Your task to perform on an android device: create a new album in the google photos Image 0: 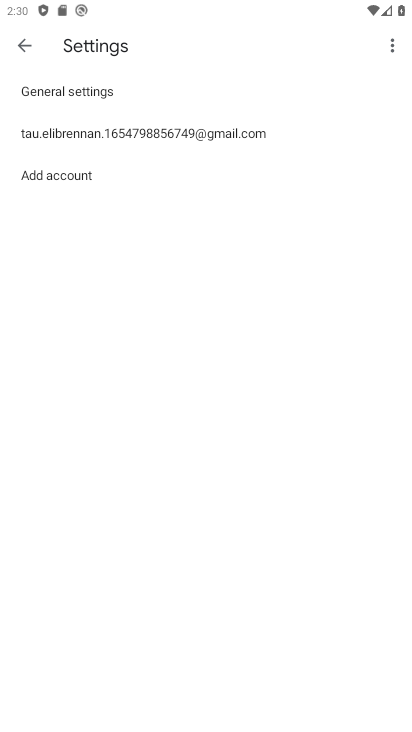
Step 0: press home button
Your task to perform on an android device: create a new album in the google photos Image 1: 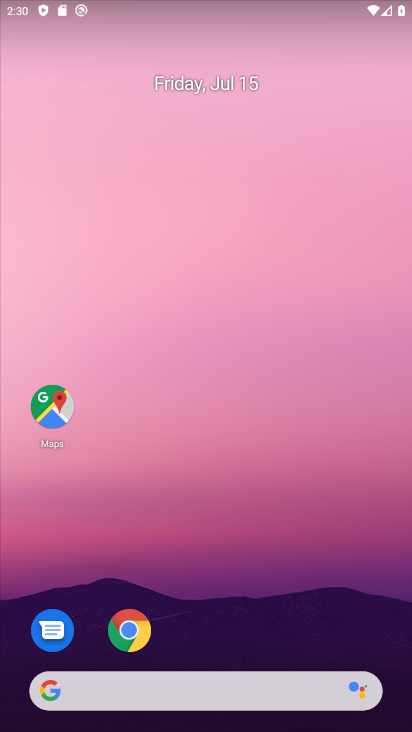
Step 1: drag from (243, 645) to (220, 146)
Your task to perform on an android device: create a new album in the google photos Image 2: 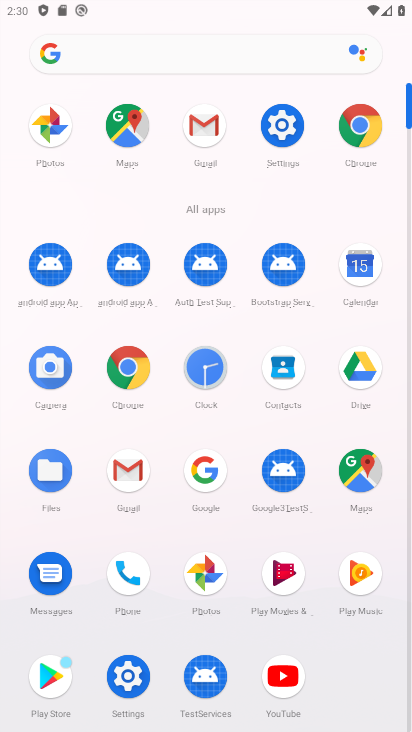
Step 2: click (203, 567)
Your task to perform on an android device: create a new album in the google photos Image 3: 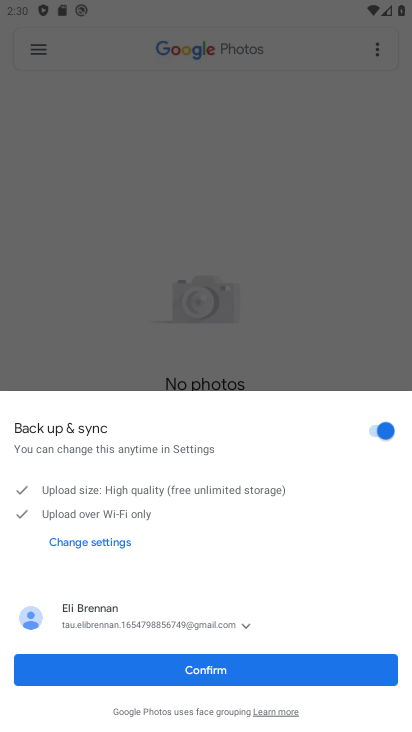
Step 3: click (316, 673)
Your task to perform on an android device: create a new album in the google photos Image 4: 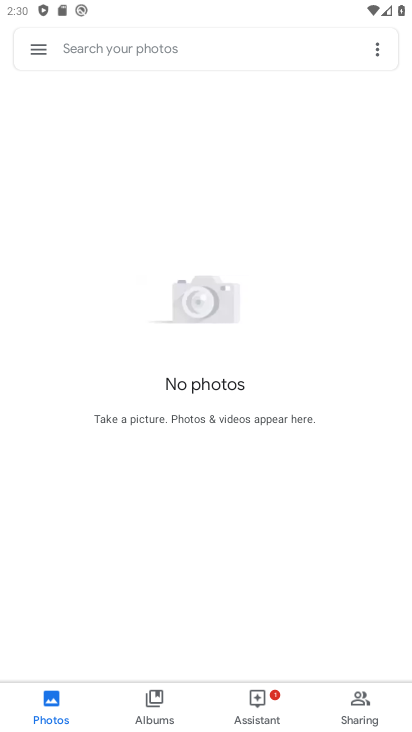
Step 4: click (141, 696)
Your task to perform on an android device: create a new album in the google photos Image 5: 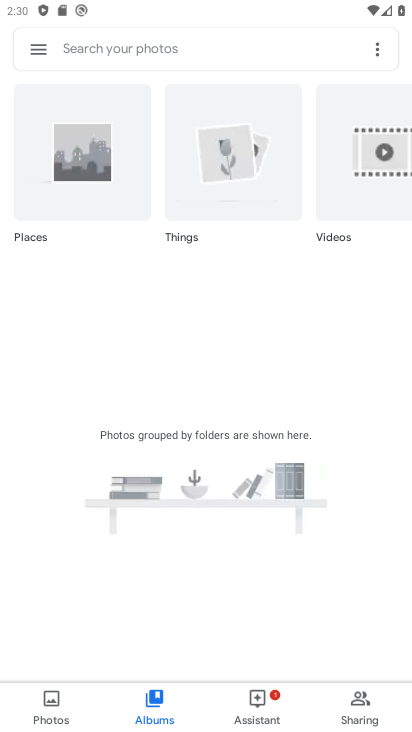
Step 5: click (375, 52)
Your task to perform on an android device: create a new album in the google photos Image 6: 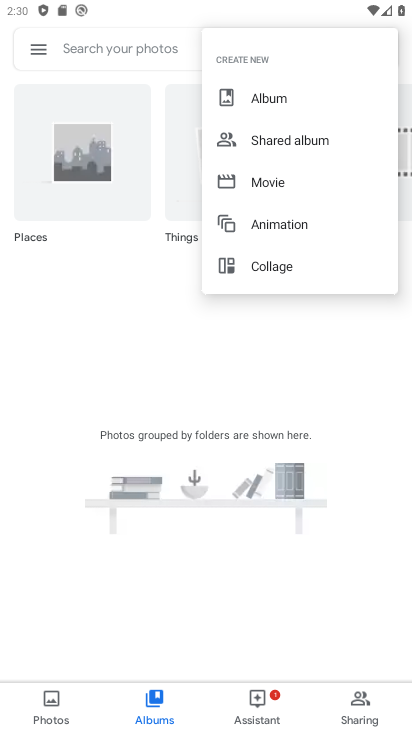
Step 6: click (287, 104)
Your task to perform on an android device: create a new album in the google photos Image 7: 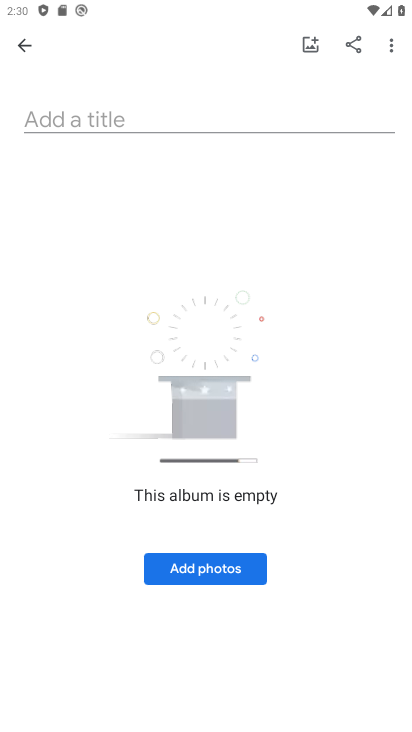
Step 7: click (51, 121)
Your task to perform on an android device: create a new album in the google photos Image 8: 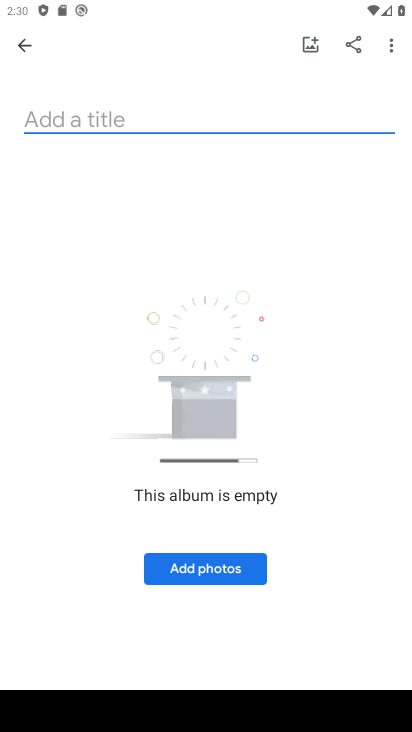
Step 8: type "ghyuhji"
Your task to perform on an android device: create a new album in the google photos Image 9: 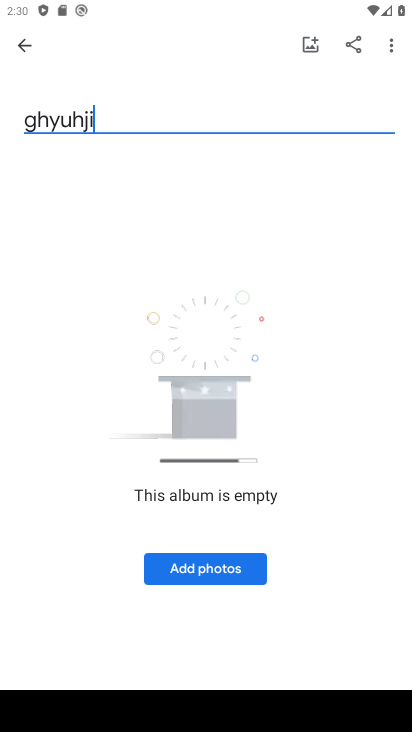
Step 9: click (220, 575)
Your task to perform on an android device: create a new album in the google photos Image 10: 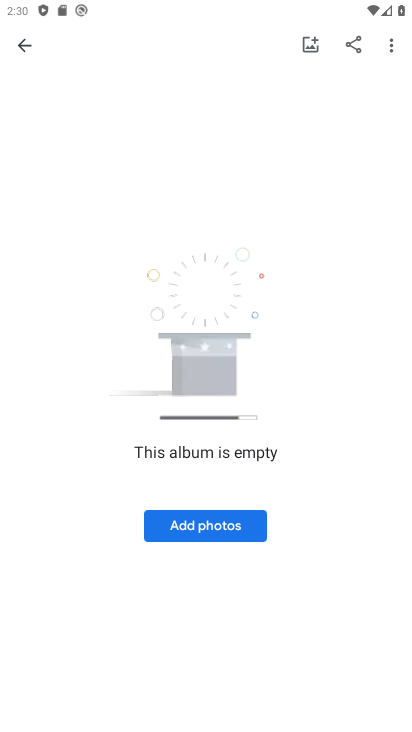
Step 10: click (194, 516)
Your task to perform on an android device: create a new album in the google photos Image 11: 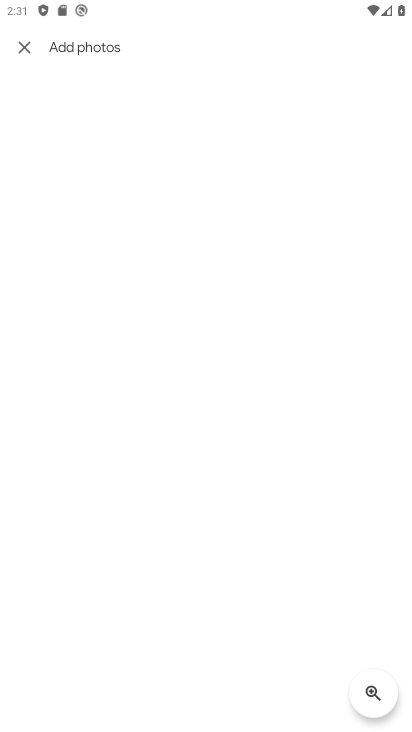
Step 11: task complete